Your task to perform on an android device: open wifi settings Image 0: 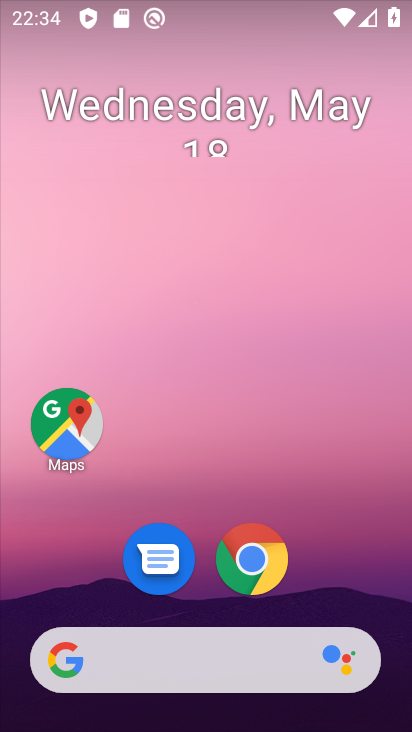
Step 0: drag from (274, 606) to (208, 63)
Your task to perform on an android device: open wifi settings Image 1: 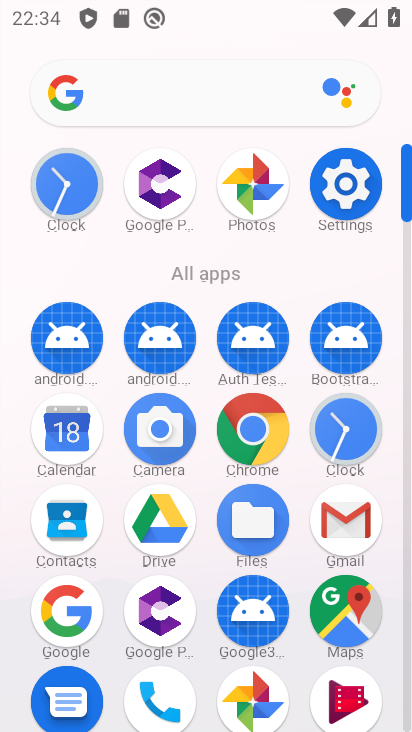
Step 1: click (340, 208)
Your task to perform on an android device: open wifi settings Image 2: 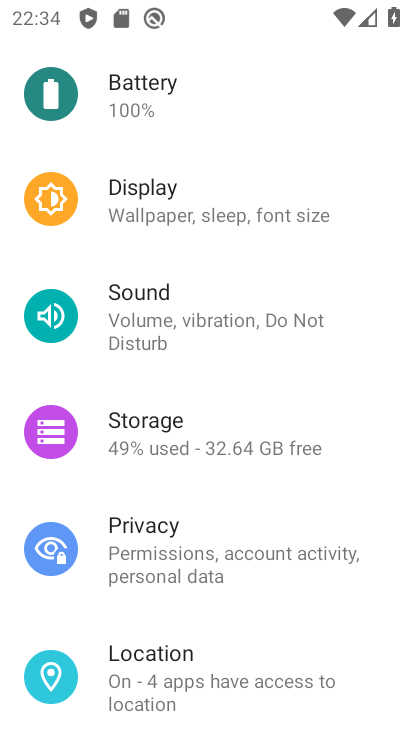
Step 2: drag from (169, 152) to (216, 540)
Your task to perform on an android device: open wifi settings Image 3: 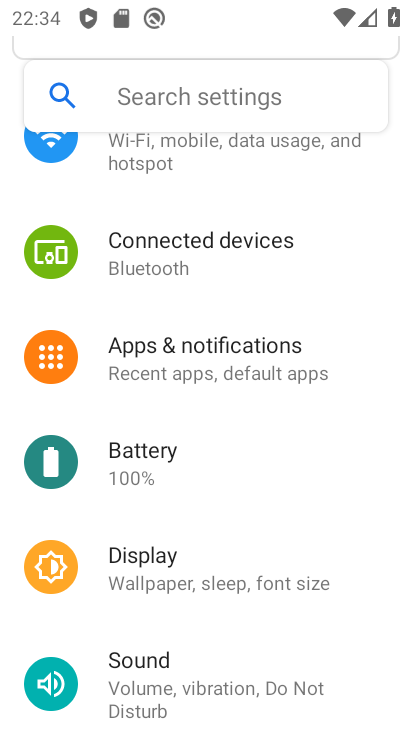
Step 3: click (165, 145)
Your task to perform on an android device: open wifi settings Image 4: 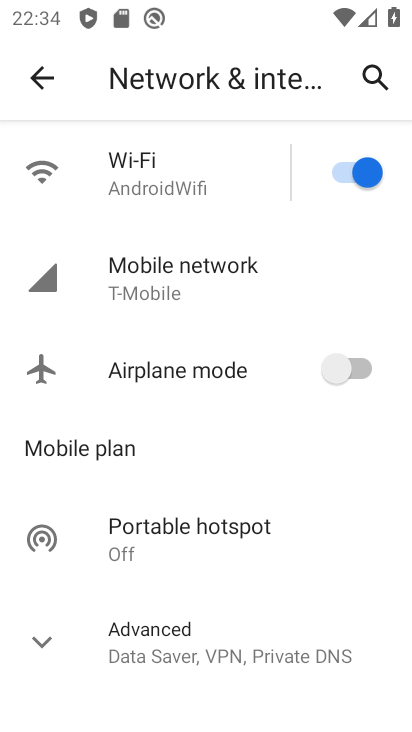
Step 4: click (154, 198)
Your task to perform on an android device: open wifi settings Image 5: 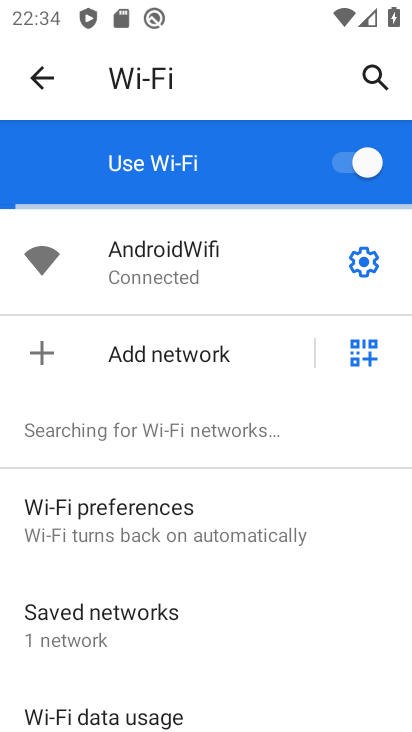
Step 5: task complete